Your task to perform on an android device: turn off notifications settings in the gmail app Image 0: 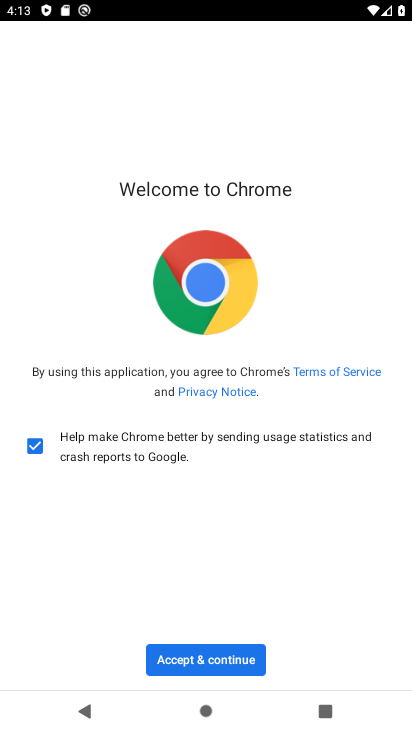
Step 0: press home button
Your task to perform on an android device: turn off notifications settings in the gmail app Image 1: 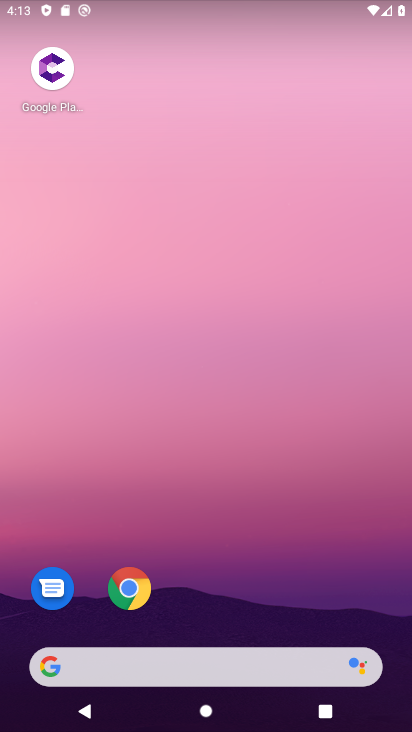
Step 1: drag from (231, 600) to (243, 93)
Your task to perform on an android device: turn off notifications settings in the gmail app Image 2: 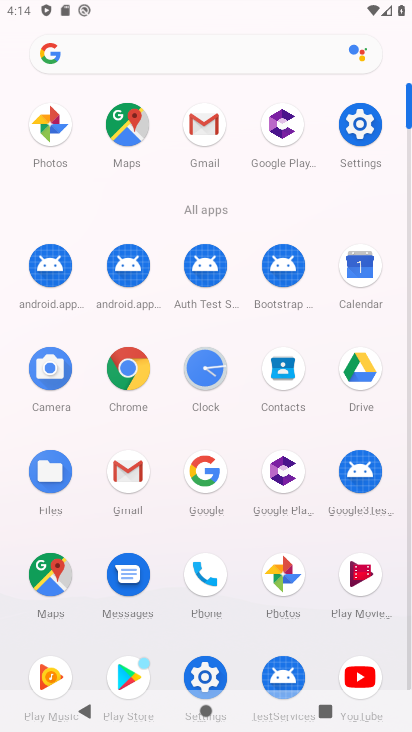
Step 2: click (200, 123)
Your task to perform on an android device: turn off notifications settings in the gmail app Image 3: 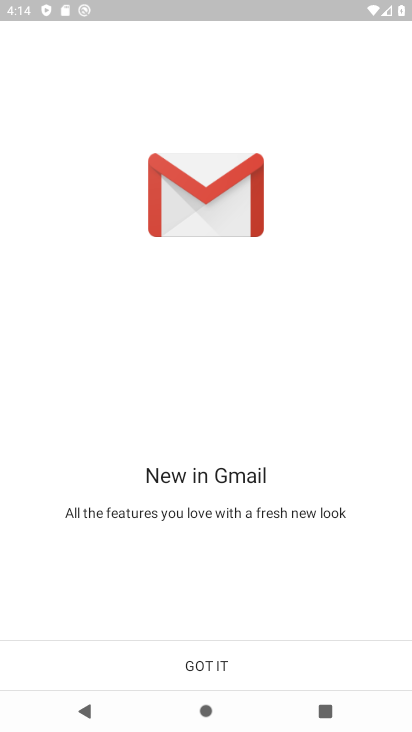
Step 3: click (209, 665)
Your task to perform on an android device: turn off notifications settings in the gmail app Image 4: 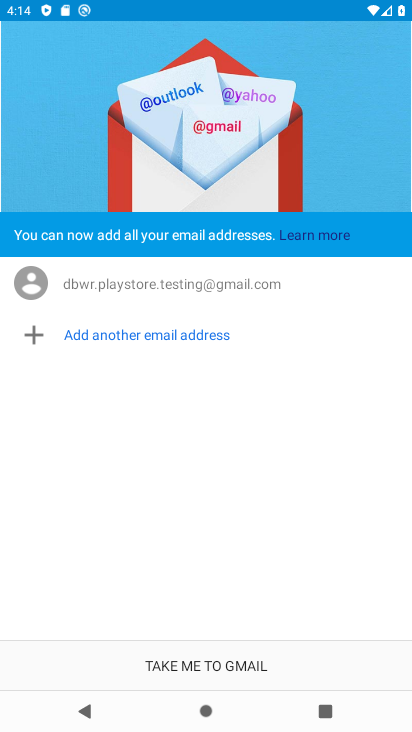
Step 4: click (209, 665)
Your task to perform on an android device: turn off notifications settings in the gmail app Image 5: 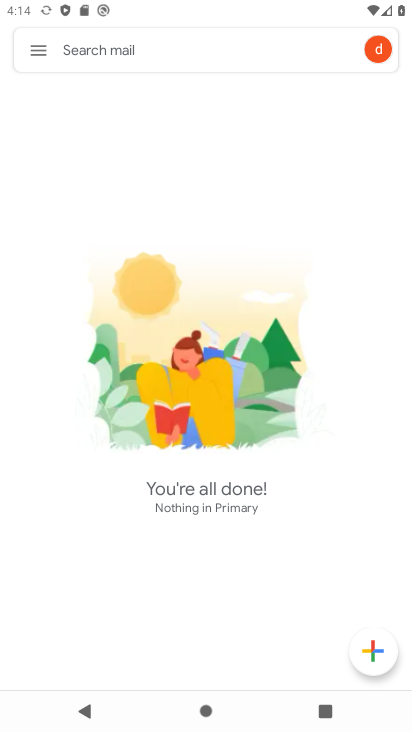
Step 5: click (32, 53)
Your task to perform on an android device: turn off notifications settings in the gmail app Image 6: 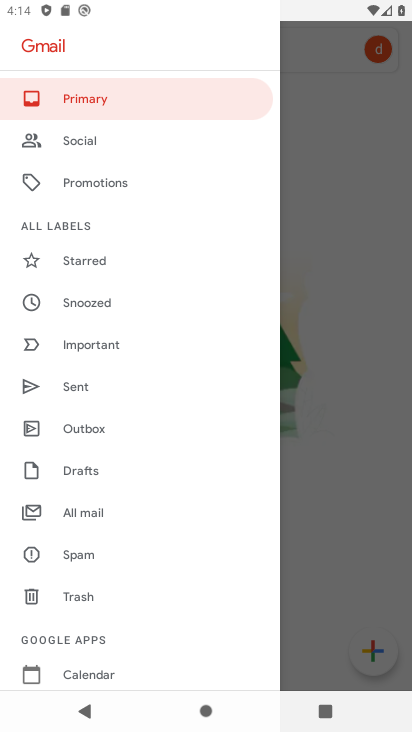
Step 6: drag from (108, 612) to (132, 550)
Your task to perform on an android device: turn off notifications settings in the gmail app Image 7: 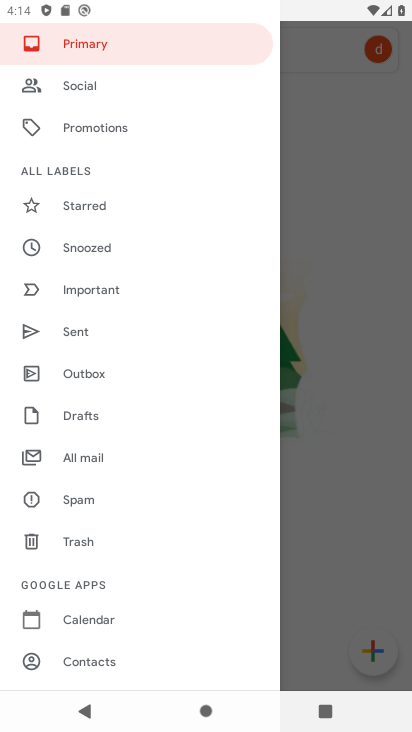
Step 7: drag from (97, 630) to (124, 562)
Your task to perform on an android device: turn off notifications settings in the gmail app Image 8: 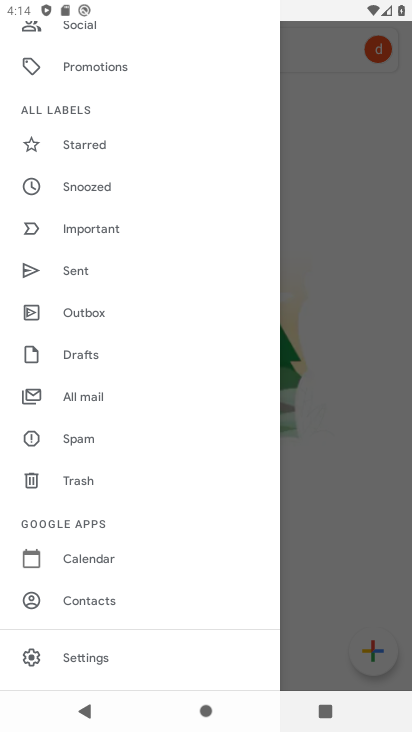
Step 8: click (93, 662)
Your task to perform on an android device: turn off notifications settings in the gmail app Image 9: 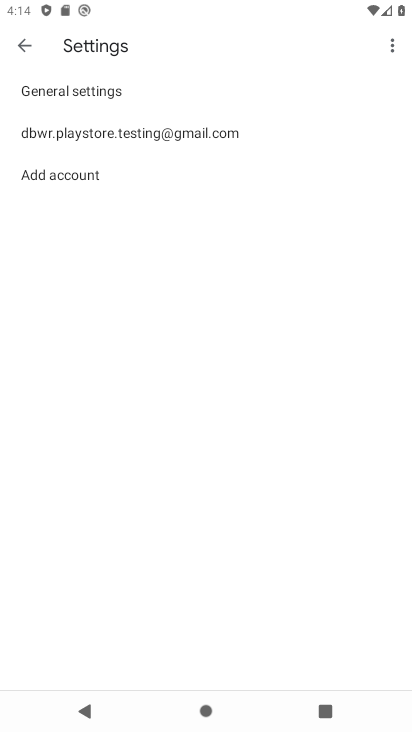
Step 9: click (101, 132)
Your task to perform on an android device: turn off notifications settings in the gmail app Image 10: 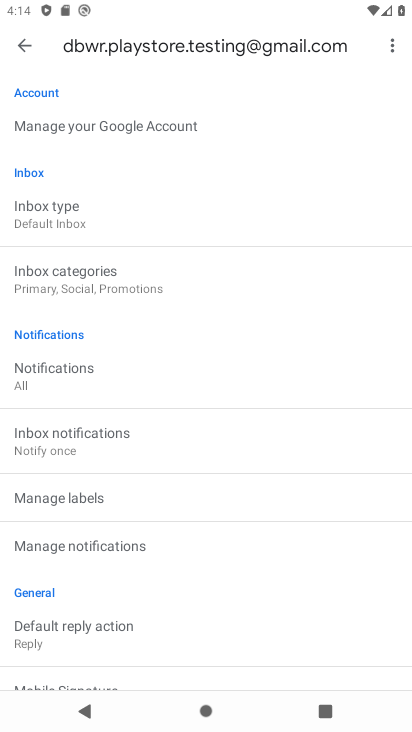
Step 10: click (96, 556)
Your task to perform on an android device: turn off notifications settings in the gmail app Image 11: 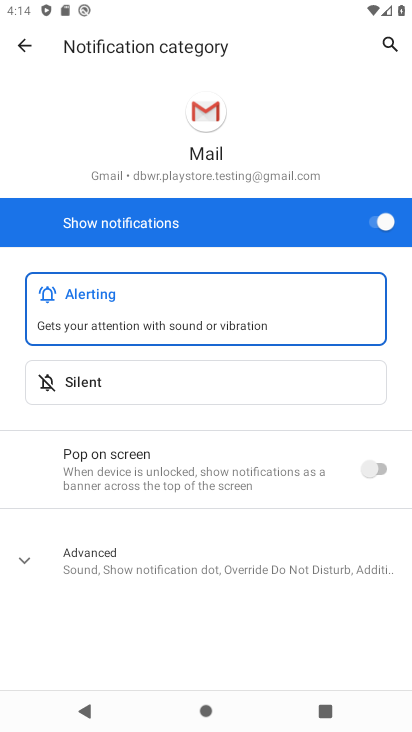
Step 11: click (377, 217)
Your task to perform on an android device: turn off notifications settings in the gmail app Image 12: 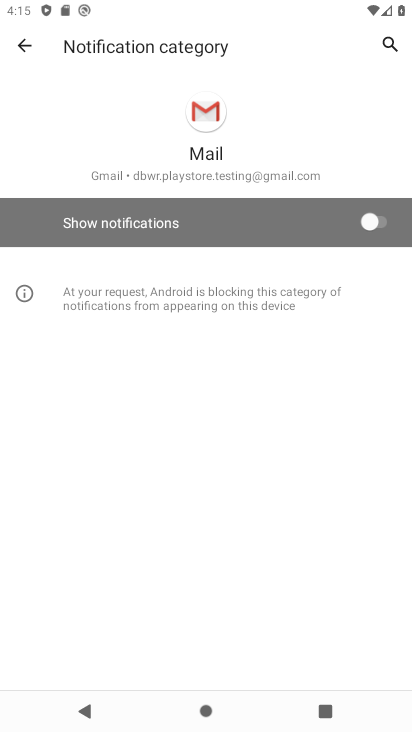
Step 12: task complete